Your task to perform on an android device: Open calendar and show me the first week of next month Image 0: 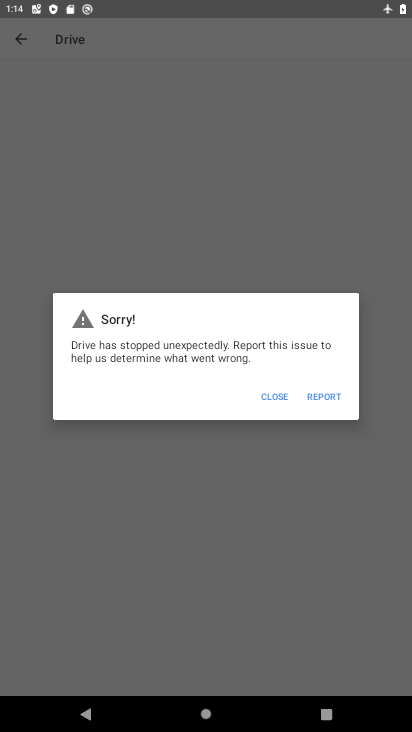
Step 0: press home button
Your task to perform on an android device: Open calendar and show me the first week of next month Image 1: 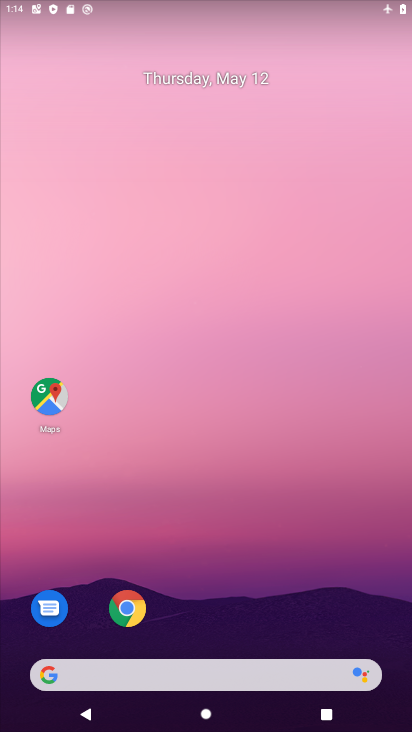
Step 1: drag from (278, 640) to (272, 9)
Your task to perform on an android device: Open calendar and show me the first week of next month Image 2: 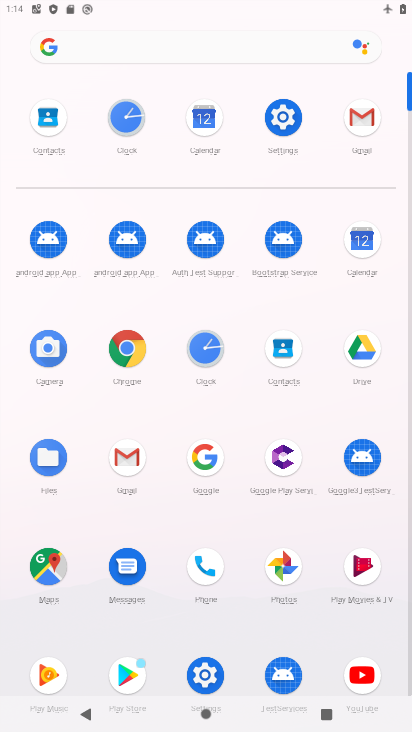
Step 2: click (199, 116)
Your task to perform on an android device: Open calendar and show me the first week of next month Image 3: 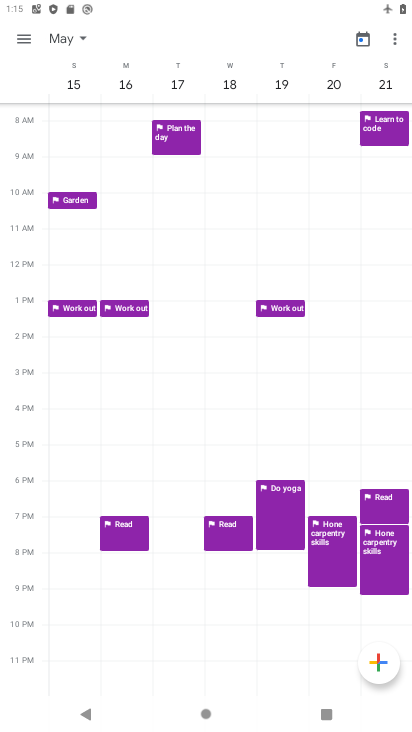
Step 3: click (86, 37)
Your task to perform on an android device: Open calendar and show me the first week of next month Image 4: 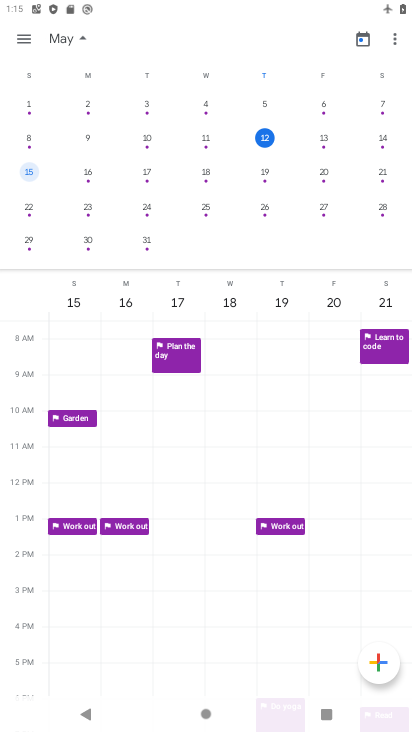
Step 4: task complete